Your task to perform on an android device: Search for seafood restaurants on Google Maps Image 0: 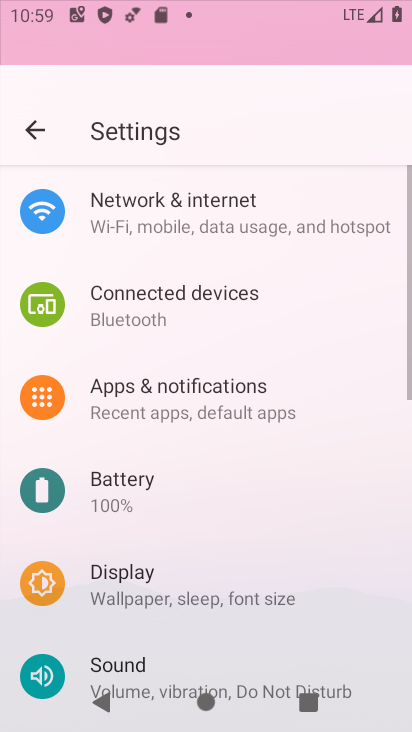
Step 0: press home button
Your task to perform on an android device: Search for seafood restaurants on Google Maps Image 1: 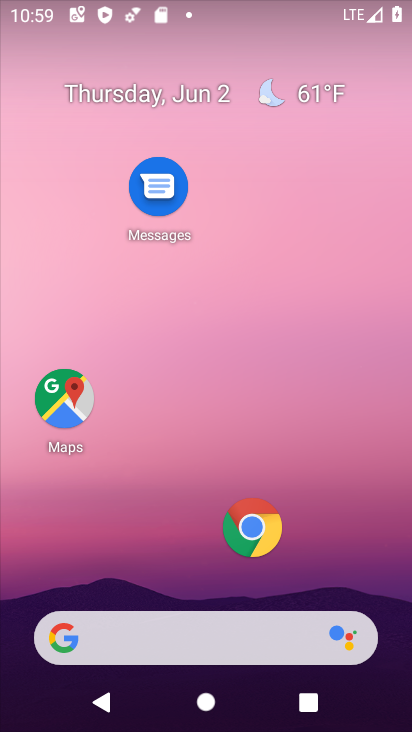
Step 1: click (60, 395)
Your task to perform on an android device: Search for seafood restaurants on Google Maps Image 2: 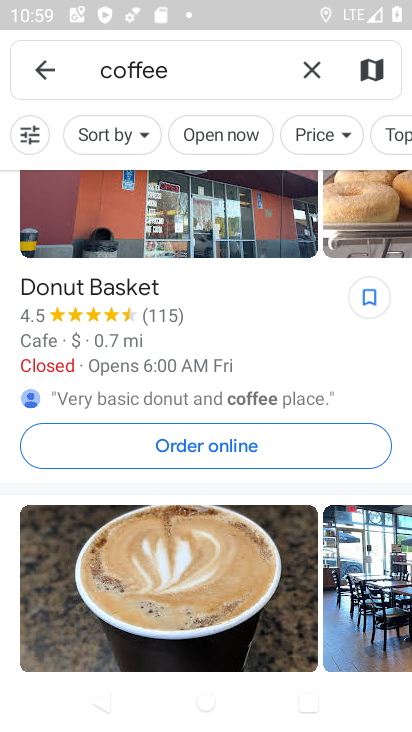
Step 2: click (301, 67)
Your task to perform on an android device: Search for seafood restaurants on Google Maps Image 3: 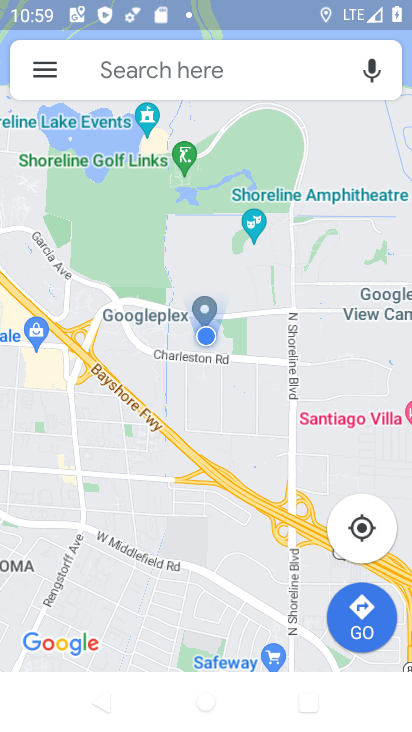
Step 3: click (201, 68)
Your task to perform on an android device: Search for seafood restaurants on Google Maps Image 4: 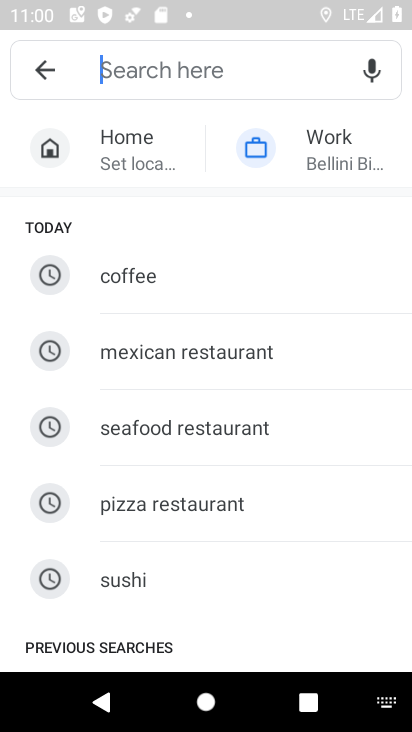
Step 4: click (202, 431)
Your task to perform on an android device: Search for seafood restaurants on Google Maps Image 5: 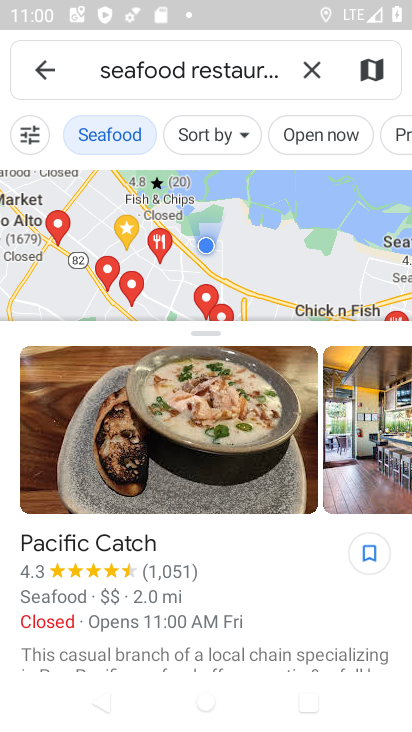
Step 5: task complete